Your task to perform on an android device: Open Google Chrome and open the bookmarks view Image 0: 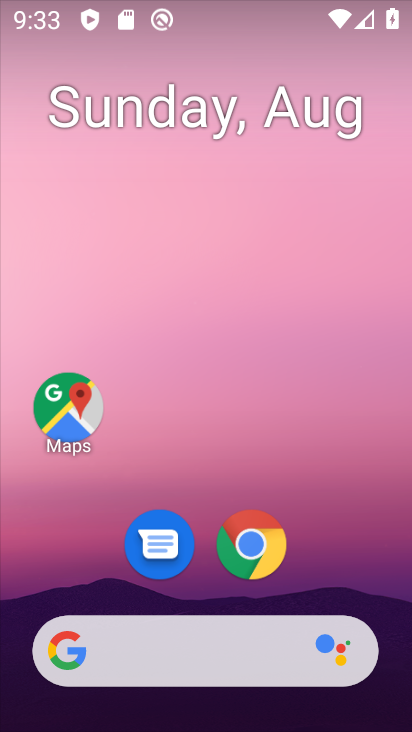
Step 0: drag from (217, 610) to (304, 718)
Your task to perform on an android device: Open Google Chrome and open the bookmarks view Image 1: 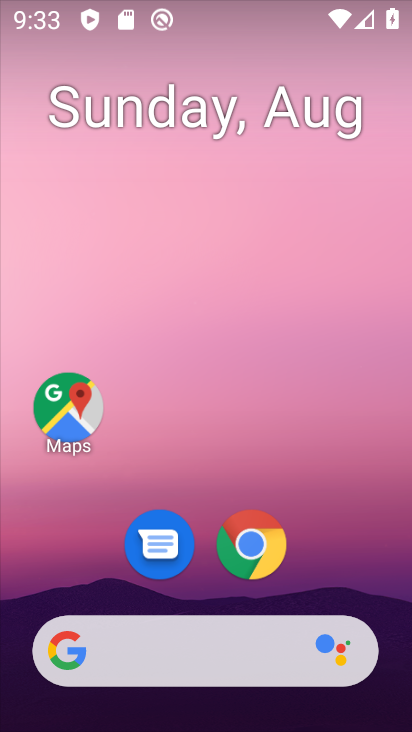
Step 1: click (239, 558)
Your task to perform on an android device: Open Google Chrome and open the bookmarks view Image 2: 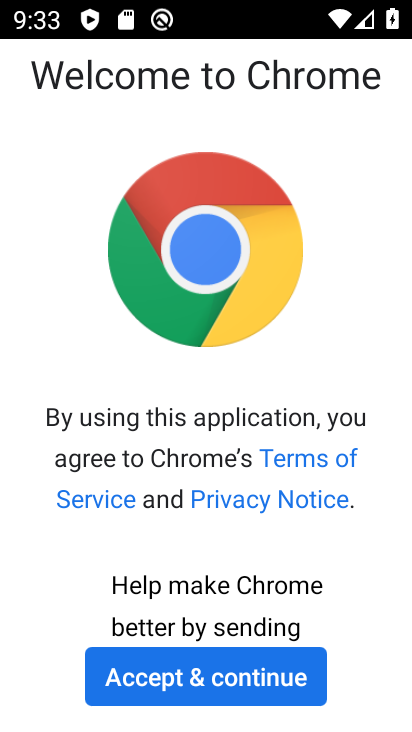
Step 2: click (234, 692)
Your task to perform on an android device: Open Google Chrome and open the bookmarks view Image 3: 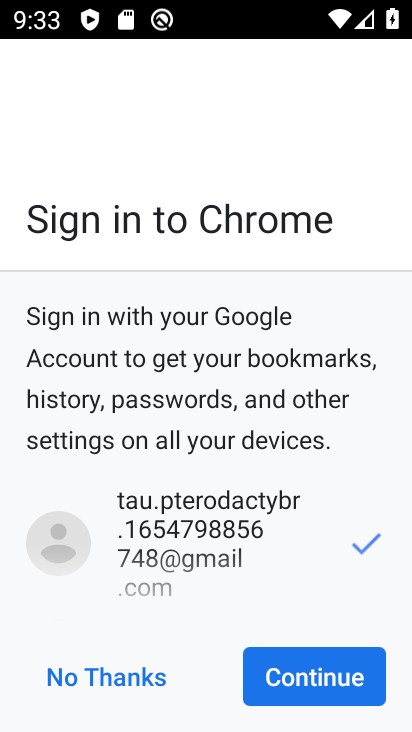
Step 3: click (292, 673)
Your task to perform on an android device: Open Google Chrome and open the bookmarks view Image 4: 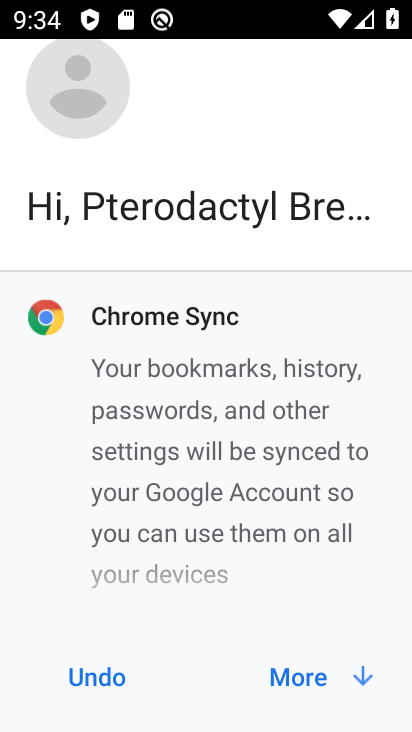
Step 4: click (290, 673)
Your task to perform on an android device: Open Google Chrome and open the bookmarks view Image 5: 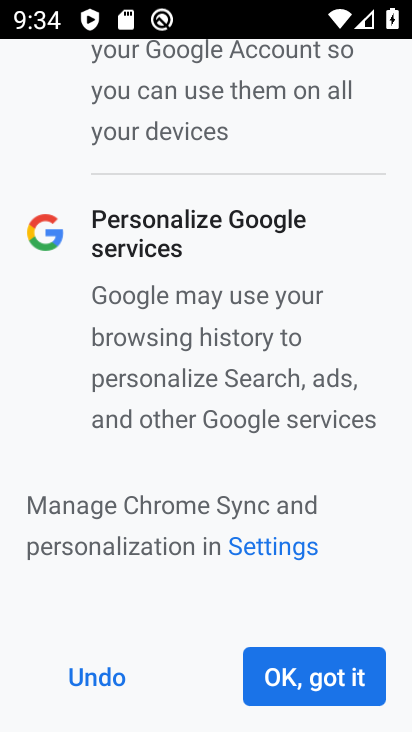
Step 5: click (293, 671)
Your task to perform on an android device: Open Google Chrome and open the bookmarks view Image 6: 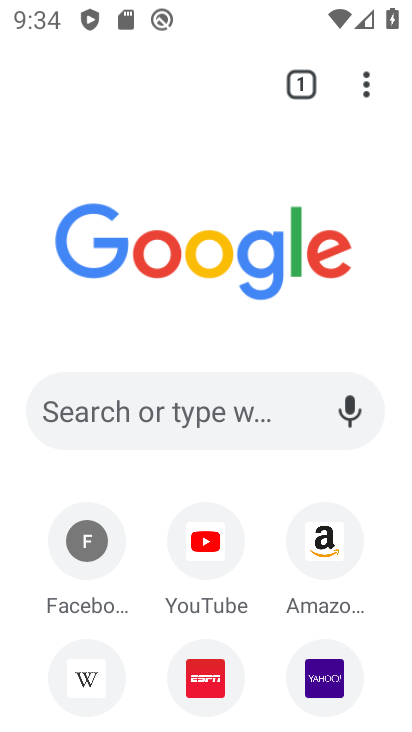
Step 6: task complete